Your task to perform on an android device: Show me productivity apps on the Play Store Image 0: 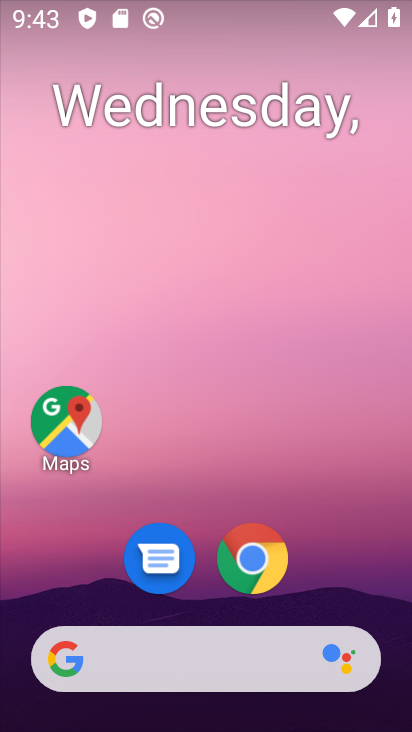
Step 0: task complete